Your task to perform on an android device: check battery use Image 0: 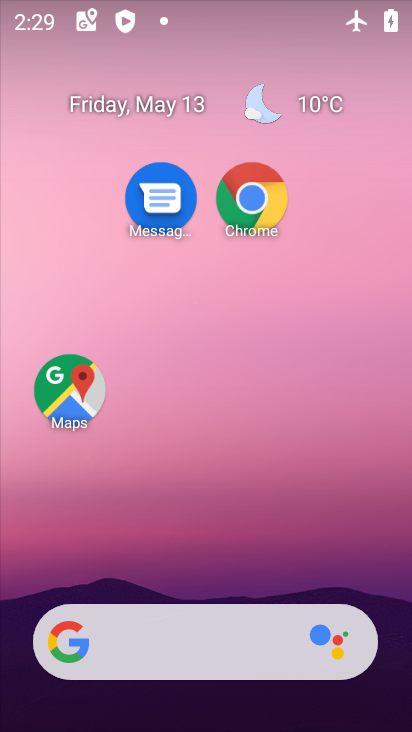
Step 0: drag from (225, 585) to (222, 7)
Your task to perform on an android device: check battery use Image 1: 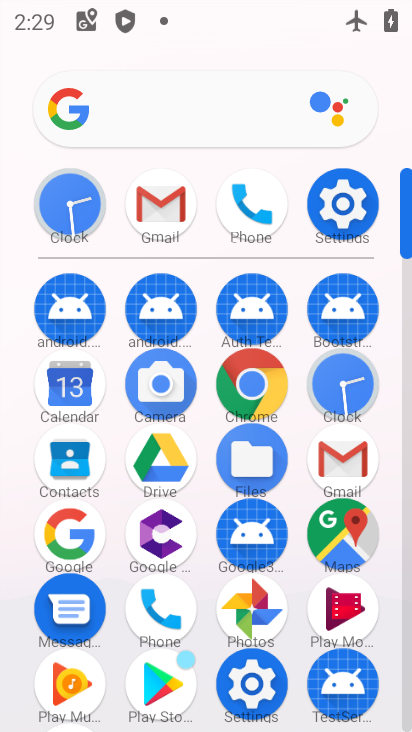
Step 1: click (362, 205)
Your task to perform on an android device: check battery use Image 2: 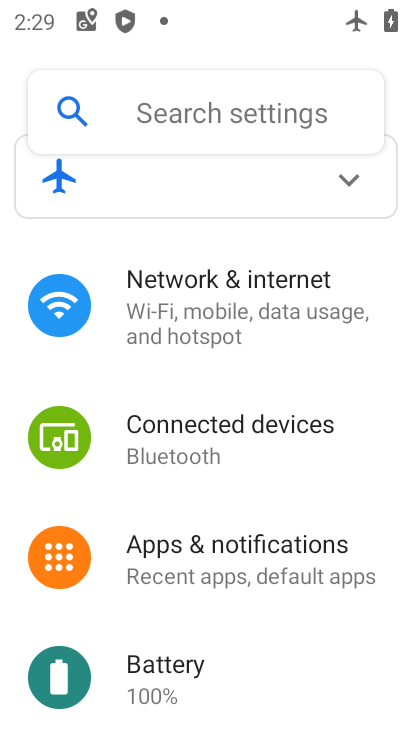
Step 2: click (165, 658)
Your task to perform on an android device: check battery use Image 3: 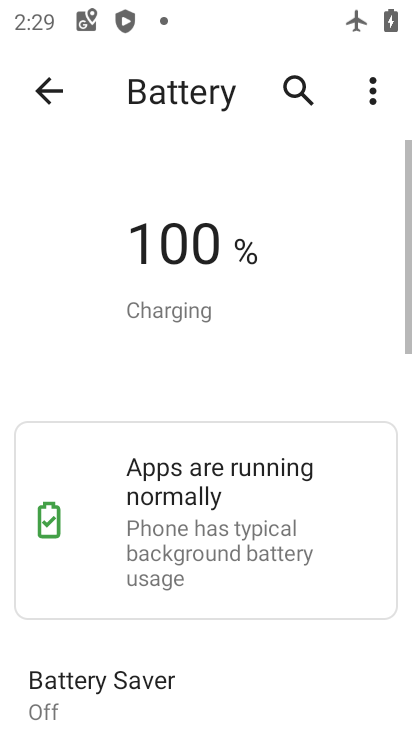
Step 3: click (379, 93)
Your task to perform on an android device: check battery use Image 4: 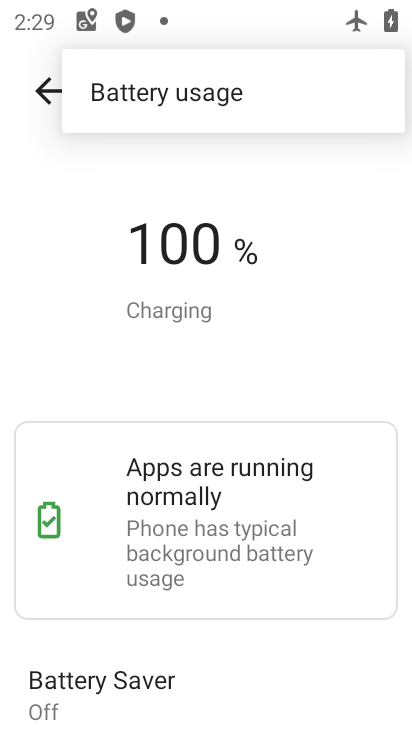
Step 4: click (200, 107)
Your task to perform on an android device: check battery use Image 5: 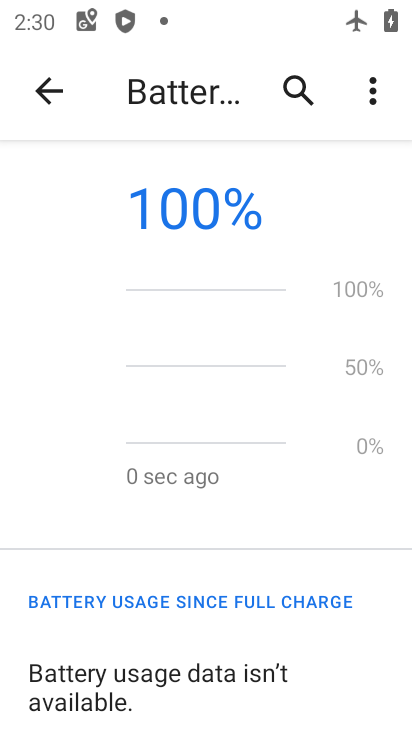
Step 5: task complete